Your task to perform on an android device: Open Youtube and go to "Your channel" Image 0: 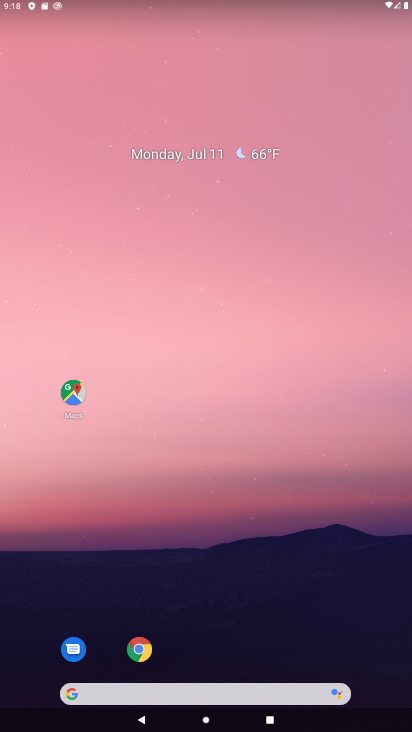
Step 0: drag from (206, 671) to (294, 95)
Your task to perform on an android device: Open Youtube and go to "Your channel" Image 1: 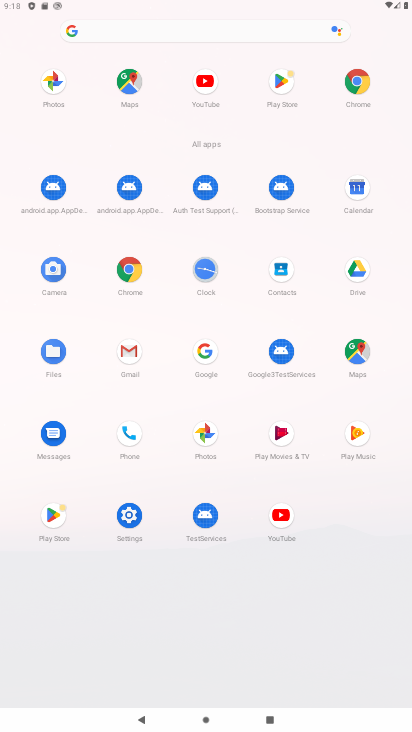
Step 1: click (283, 522)
Your task to perform on an android device: Open Youtube and go to "Your channel" Image 2: 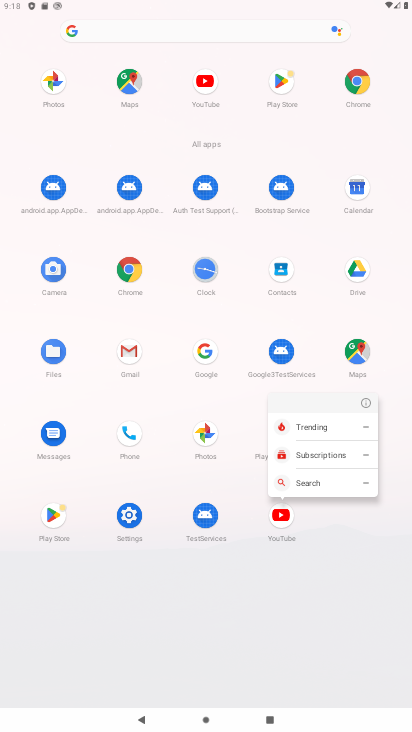
Step 2: click (283, 519)
Your task to perform on an android device: Open Youtube and go to "Your channel" Image 3: 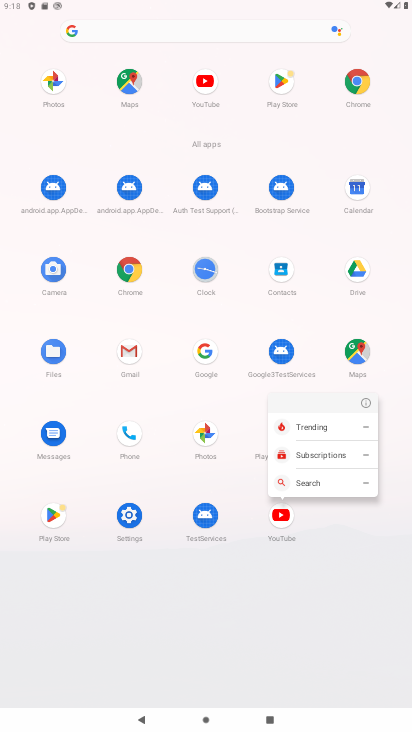
Step 3: click (283, 506)
Your task to perform on an android device: Open Youtube and go to "Your channel" Image 4: 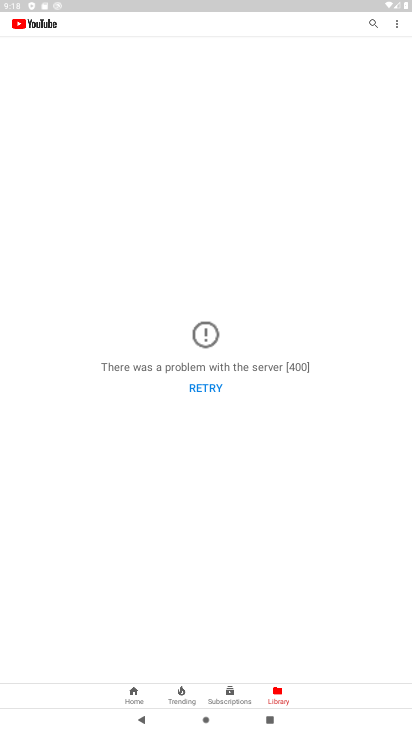
Step 4: click (278, 522)
Your task to perform on an android device: Open Youtube and go to "Your channel" Image 5: 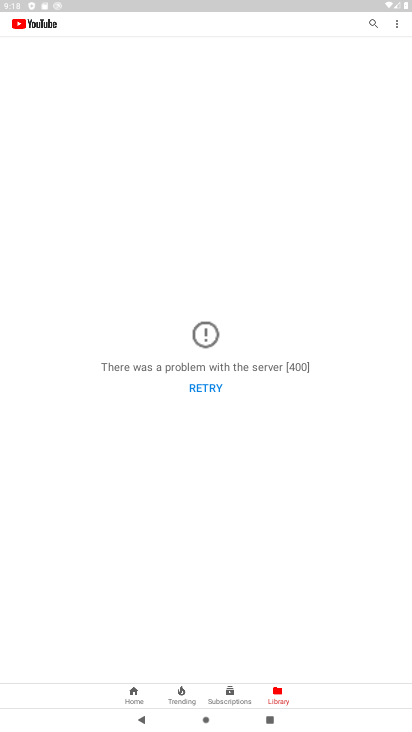
Step 5: click (270, 684)
Your task to perform on an android device: Open Youtube and go to "Your channel" Image 6: 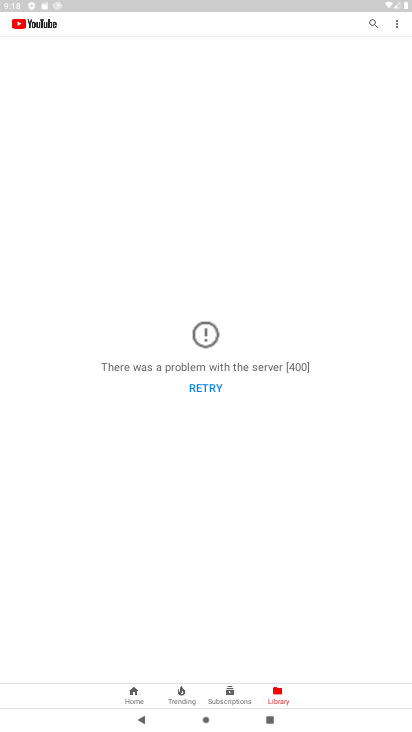
Step 6: task complete